Your task to perform on an android device: allow cookies in the chrome app Image 0: 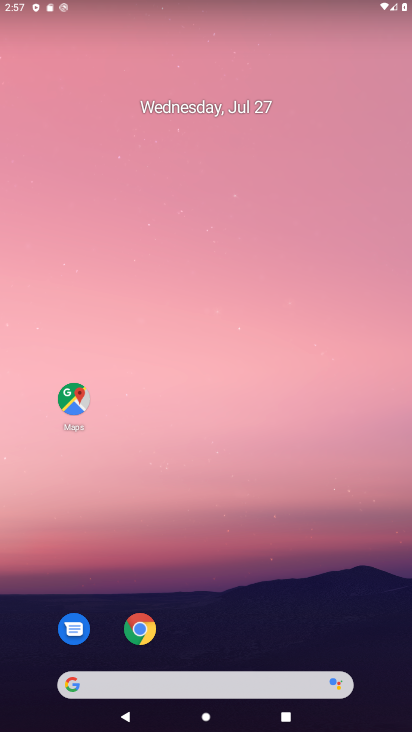
Step 0: press home button
Your task to perform on an android device: allow cookies in the chrome app Image 1: 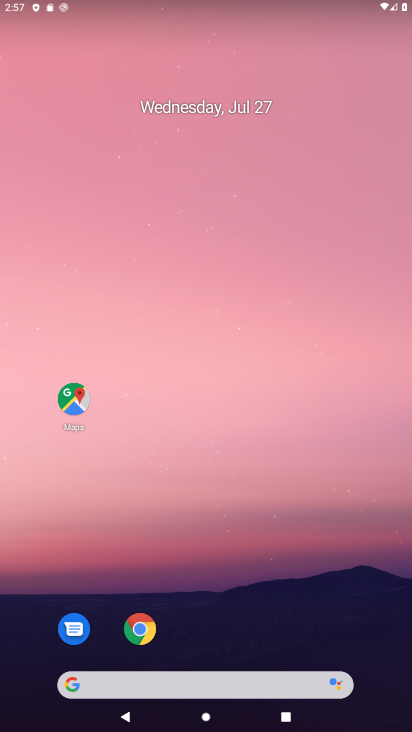
Step 1: click (137, 622)
Your task to perform on an android device: allow cookies in the chrome app Image 2: 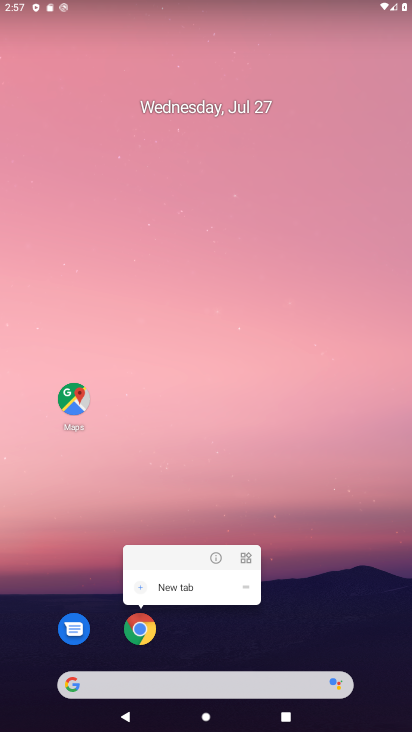
Step 2: click (140, 621)
Your task to perform on an android device: allow cookies in the chrome app Image 3: 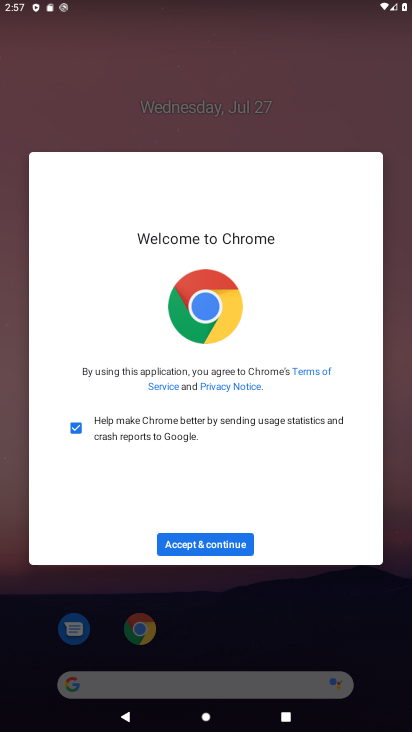
Step 3: click (211, 541)
Your task to perform on an android device: allow cookies in the chrome app Image 4: 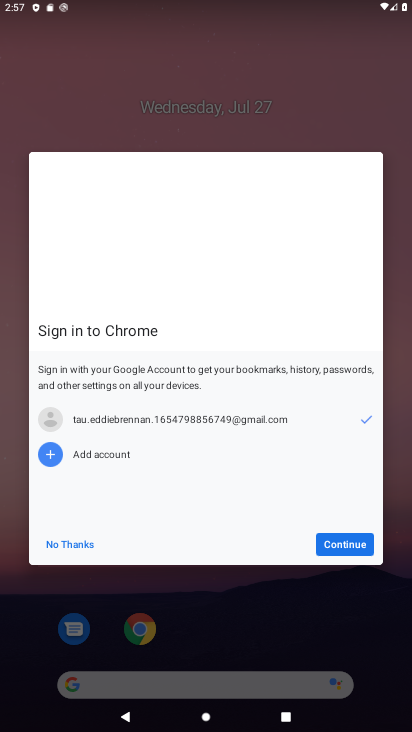
Step 4: click (348, 542)
Your task to perform on an android device: allow cookies in the chrome app Image 5: 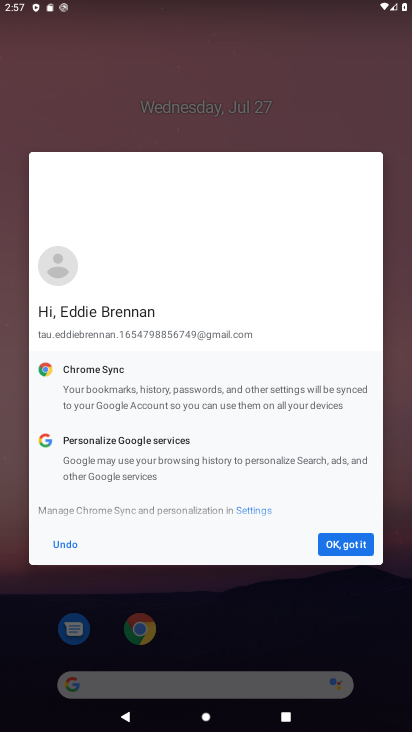
Step 5: click (348, 542)
Your task to perform on an android device: allow cookies in the chrome app Image 6: 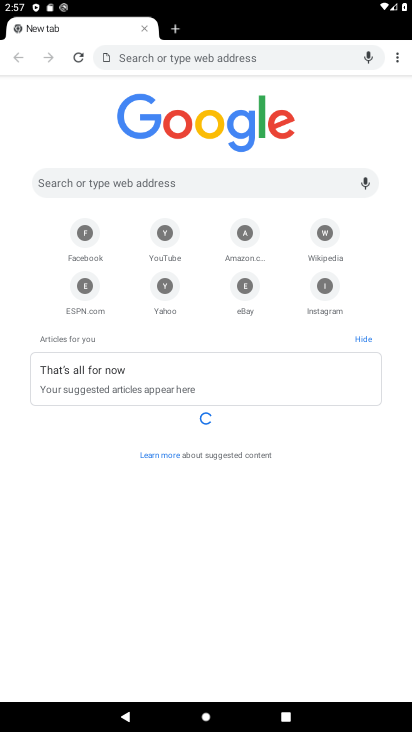
Step 6: click (401, 54)
Your task to perform on an android device: allow cookies in the chrome app Image 7: 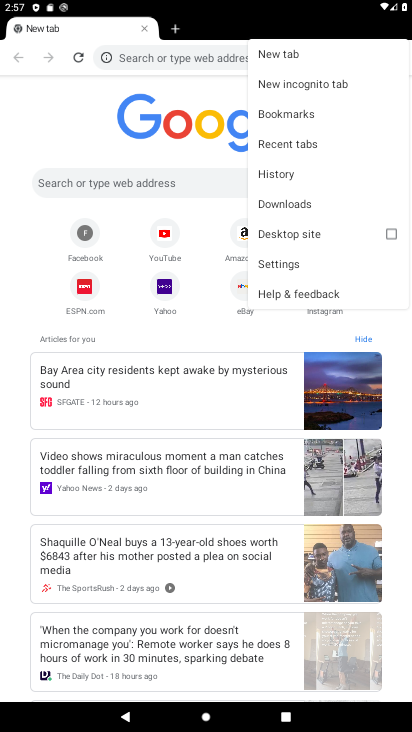
Step 7: click (279, 253)
Your task to perform on an android device: allow cookies in the chrome app Image 8: 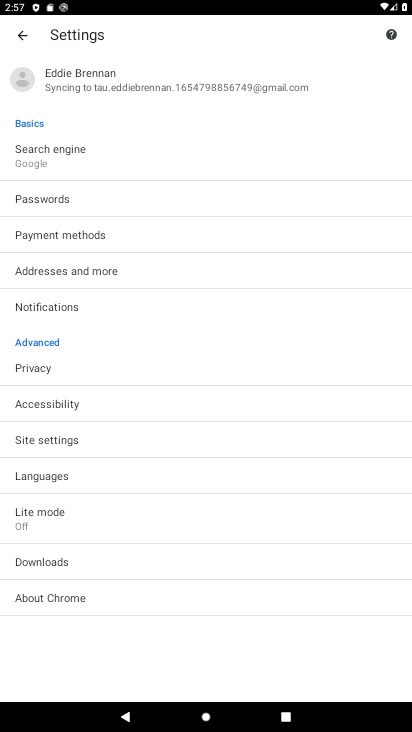
Step 8: click (55, 435)
Your task to perform on an android device: allow cookies in the chrome app Image 9: 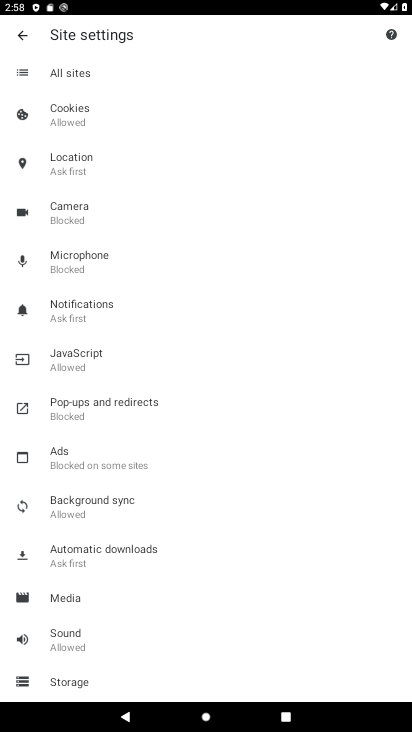
Step 9: click (97, 113)
Your task to perform on an android device: allow cookies in the chrome app Image 10: 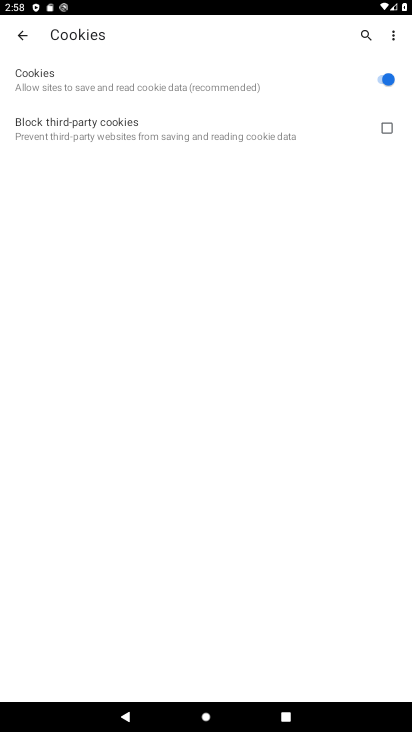
Step 10: task complete